Your task to perform on an android device: change the clock display to analog Image 0: 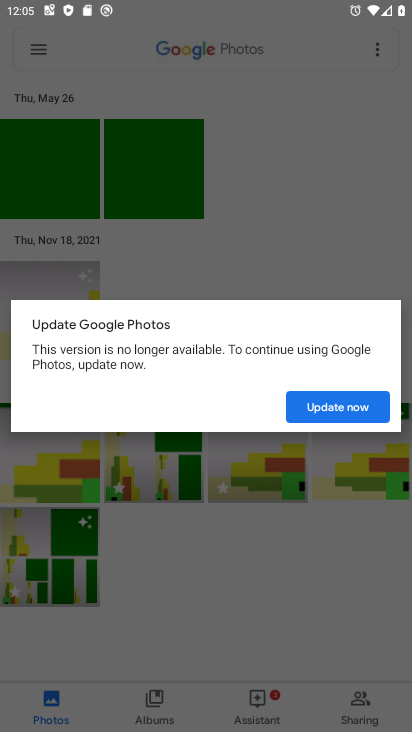
Step 0: press home button
Your task to perform on an android device: change the clock display to analog Image 1: 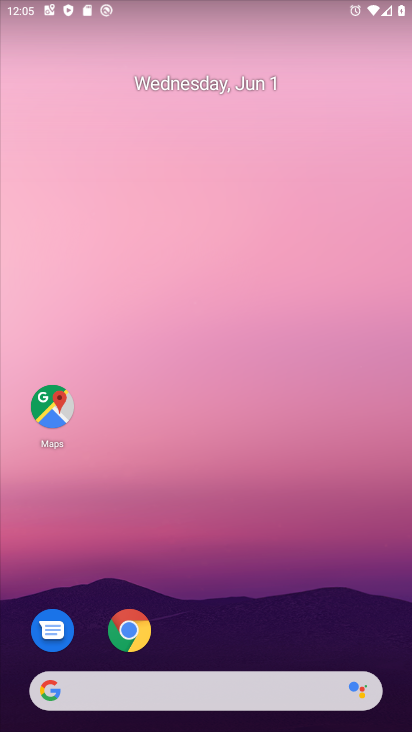
Step 1: drag from (147, 729) to (147, 104)
Your task to perform on an android device: change the clock display to analog Image 2: 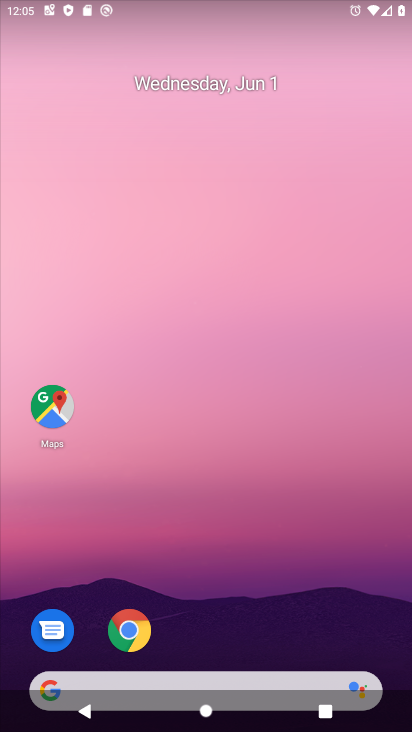
Step 2: drag from (127, 727) to (125, 120)
Your task to perform on an android device: change the clock display to analog Image 3: 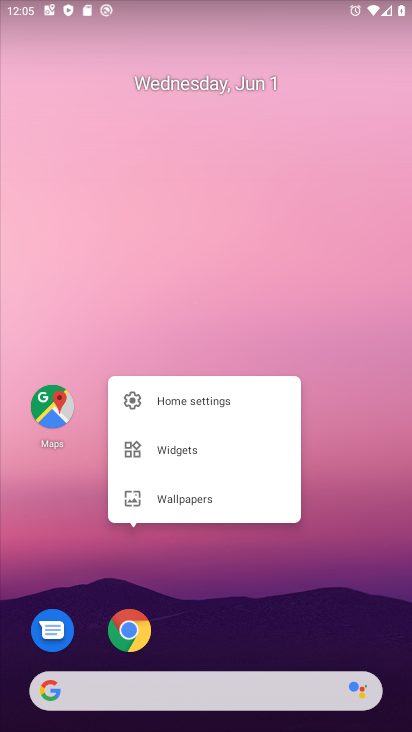
Step 3: press home button
Your task to perform on an android device: change the clock display to analog Image 4: 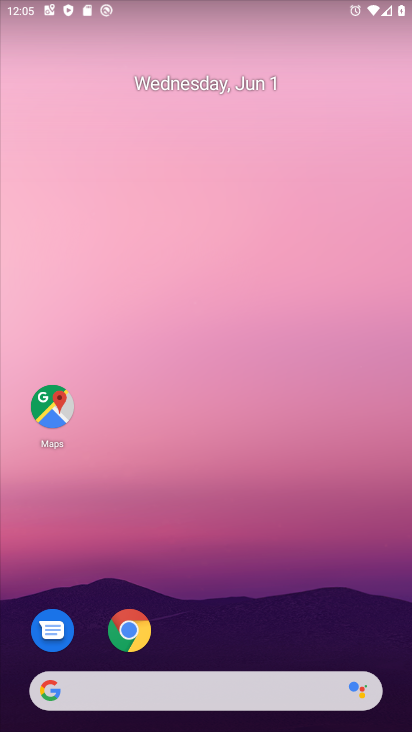
Step 4: drag from (139, 542) to (128, 145)
Your task to perform on an android device: change the clock display to analog Image 5: 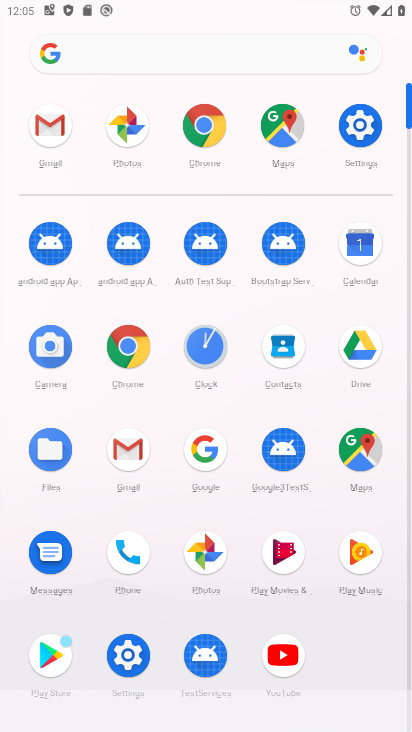
Step 5: click (203, 347)
Your task to perform on an android device: change the clock display to analog Image 6: 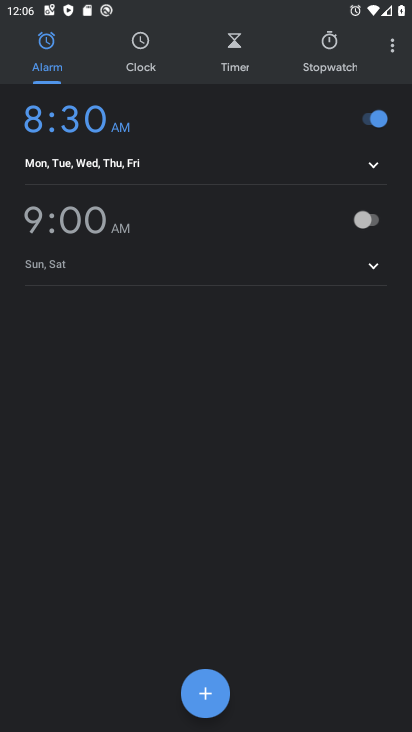
Step 6: click (393, 51)
Your task to perform on an android device: change the clock display to analog Image 7: 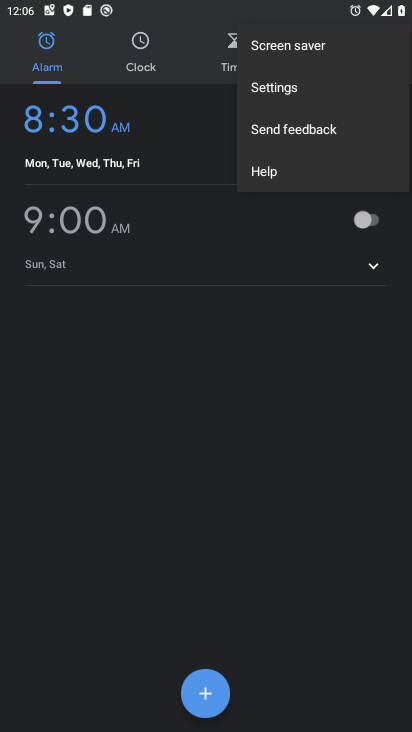
Step 7: click (261, 95)
Your task to perform on an android device: change the clock display to analog Image 8: 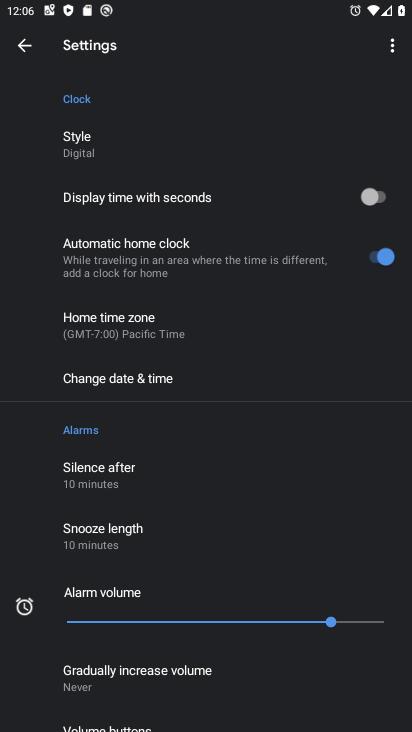
Step 8: click (88, 141)
Your task to perform on an android device: change the clock display to analog Image 9: 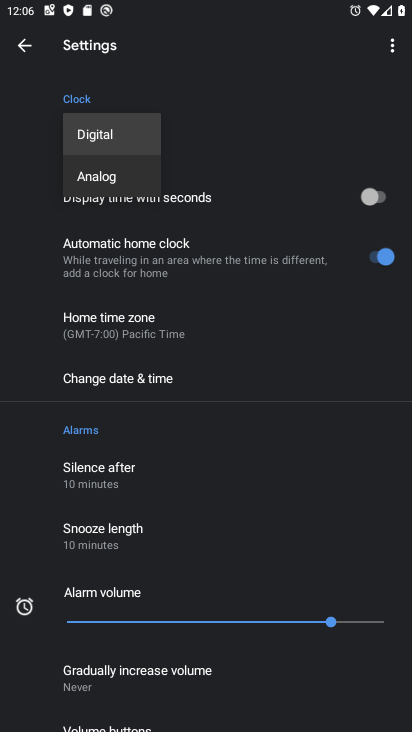
Step 9: click (124, 179)
Your task to perform on an android device: change the clock display to analog Image 10: 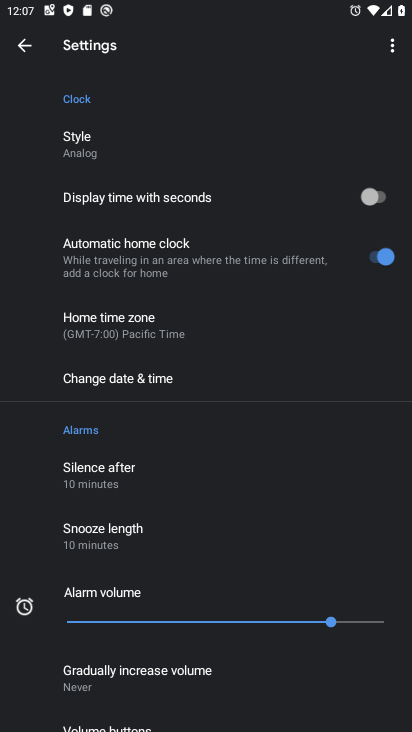
Step 10: task complete